Your task to perform on an android device: Check the news Image 0: 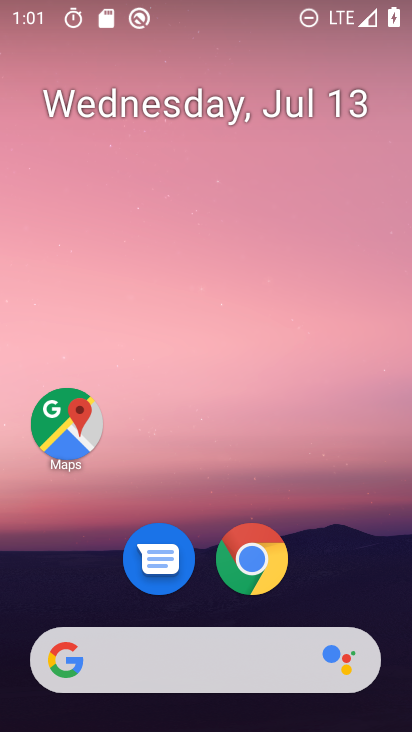
Step 0: drag from (195, 527) to (226, 291)
Your task to perform on an android device: Check the news Image 1: 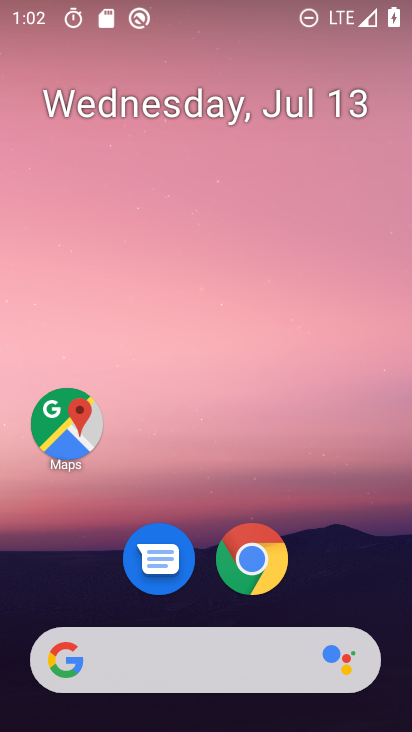
Step 1: drag from (181, 653) to (215, 319)
Your task to perform on an android device: Check the news Image 2: 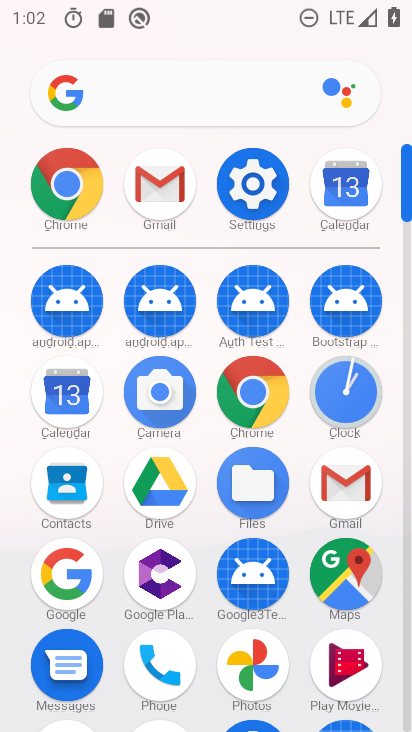
Step 2: click (62, 574)
Your task to perform on an android device: Check the news Image 3: 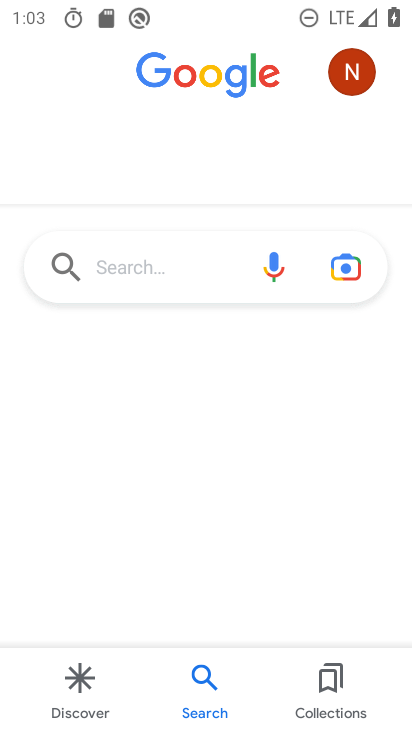
Step 3: click (179, 285)
Your task to perform on an android device: Check the news Image 4: 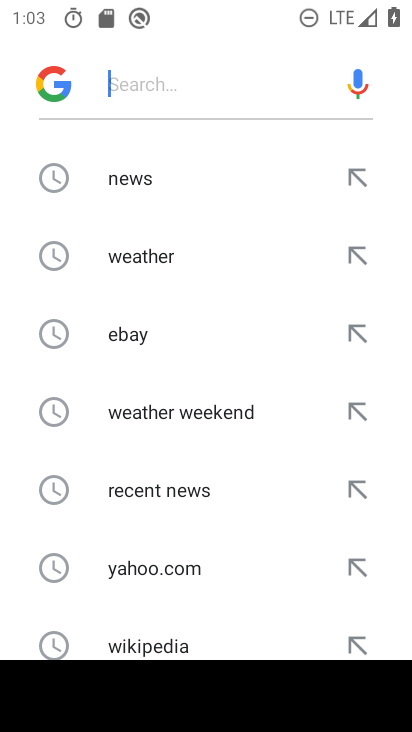
Step 4: click (178, 189)
Your task to perform on an android device: Check the news Image 5: 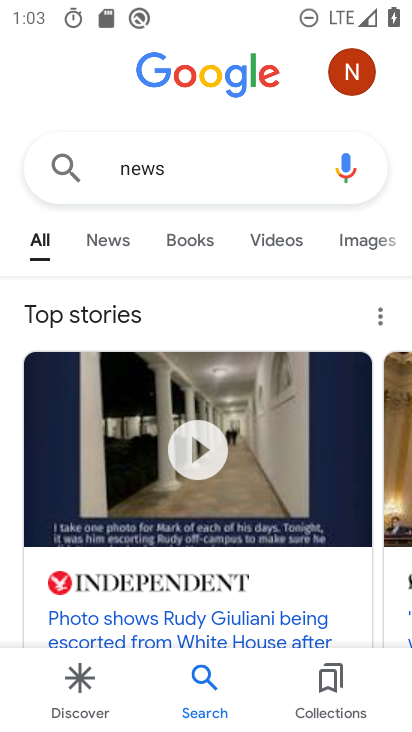
Step 5: click (126, 245)
Your task to perform on an android device: Check the news Image 6: 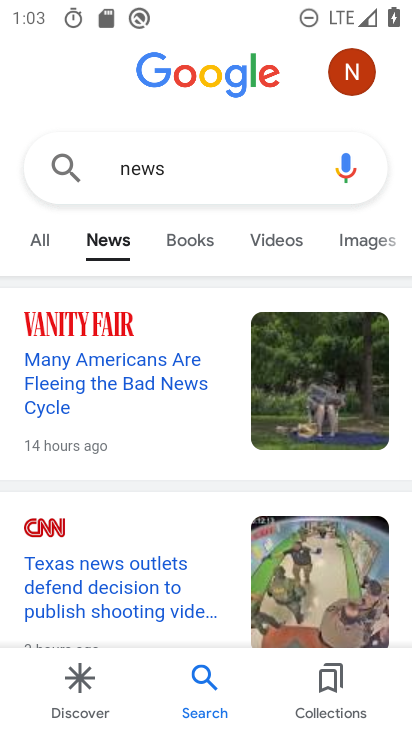
Step 6: task complete